Your task to perform on an android device: toggle wifi Image 0: 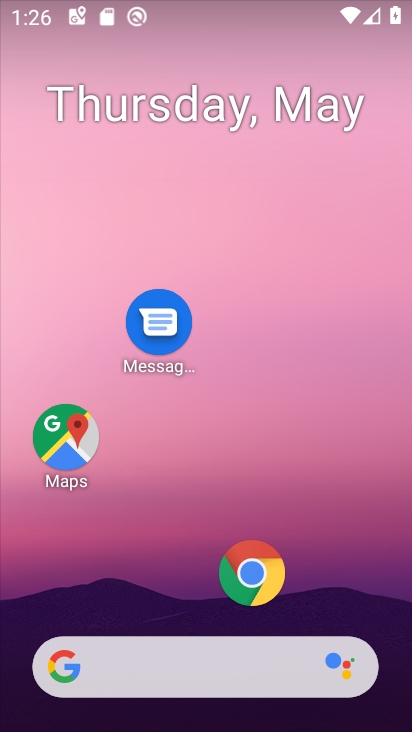
Step 0: click (304, 72)
Your task to perform on an android device: toggle wifi Image 1: 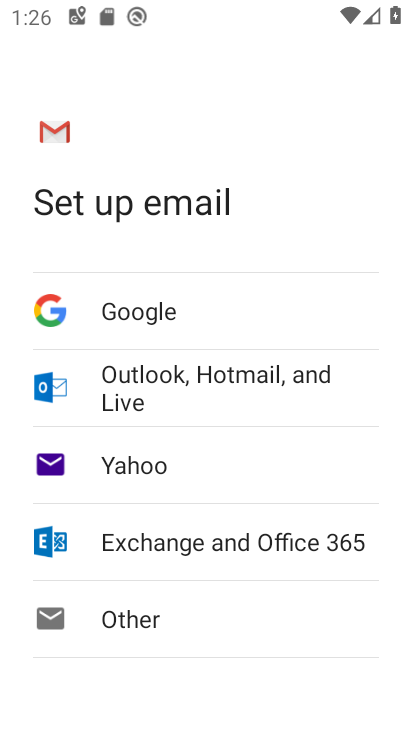
Step 1: press home button
Your task to perform on an android device: toggle wifi Image 2: 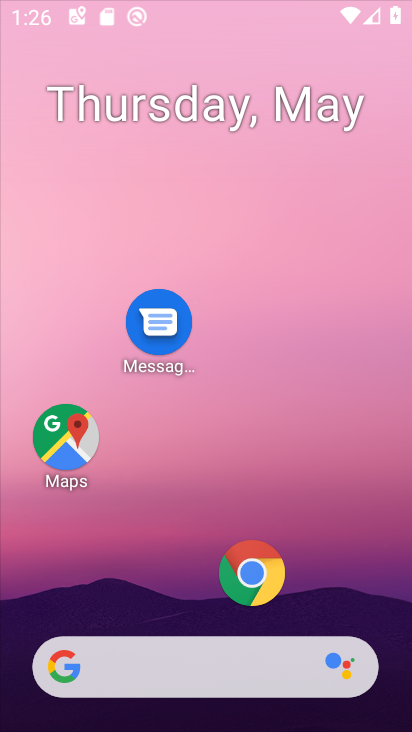
Step 2: drag from (198, 636) to (261, 51)
Your task to perform on an android device: toggle wifi Image 3: 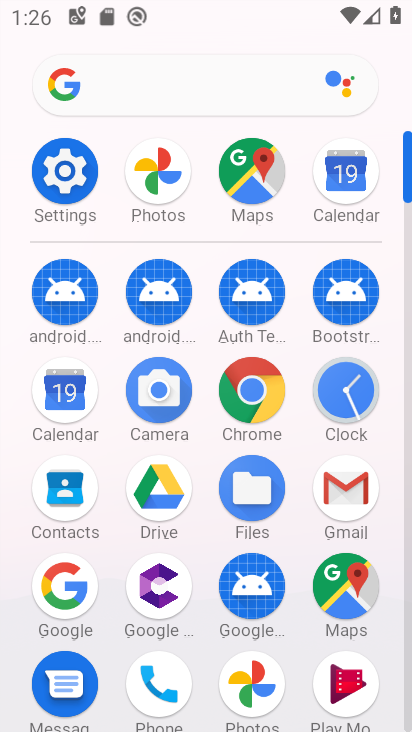
Step 3: click (73, 167)
Your task to perform on an android device: toggle wifi Image 4: 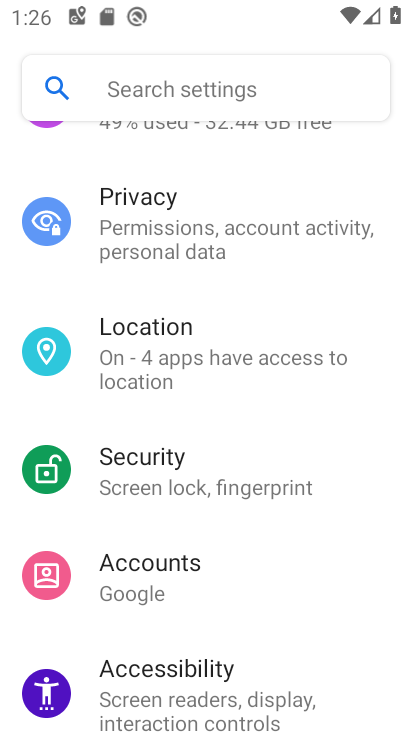
Step 4: drag from (184, 198) to (270, 717)
Your task to perform on an android device: toggle wifi Image 5: 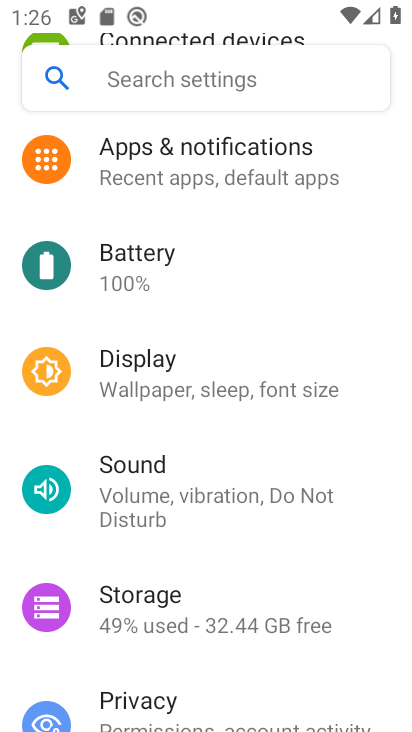
Step 5: drag from (159, 218) to (267, 727)
Your task to perform on an android device: toggle wifi Image 6: 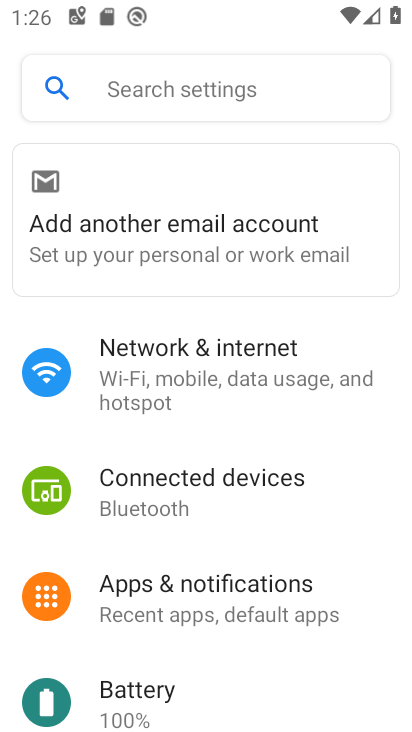
Step 6: click (196, 369)
Your task to perform on an android device: toggle wifi Image 7: 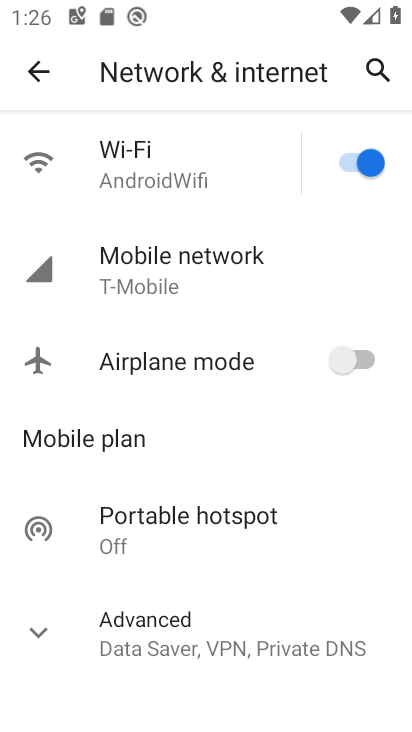
Step 7: click (181, 175)
Your task to perform on an android device: toggle wifi Image 8: 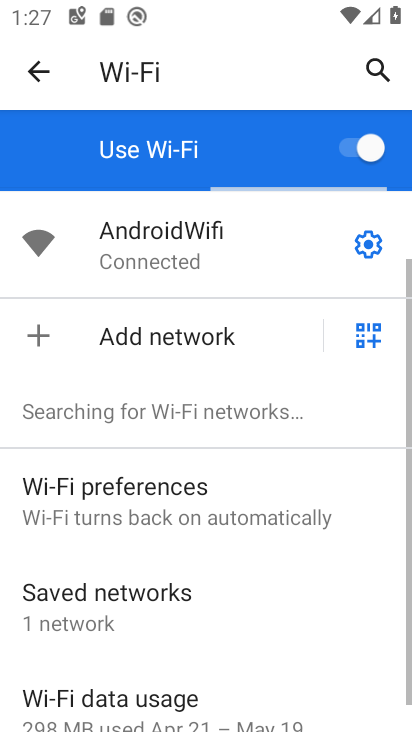
Step 8: click (348, 143)
Your task to perform on an android device: toggle wifi Image 9: 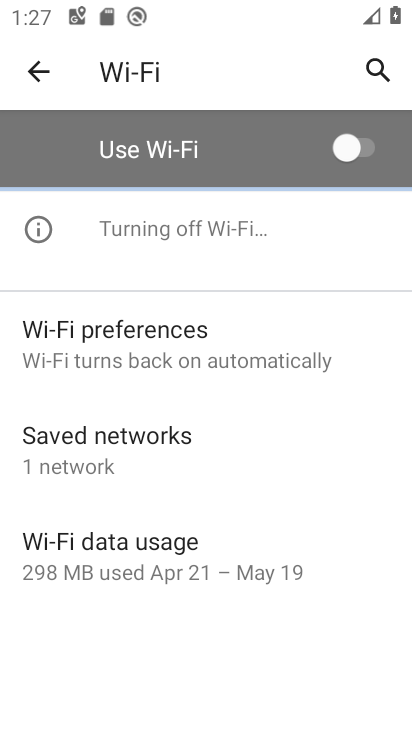
Step 9: task complete